Your task to perform on an android device: Open sound settings Image 0: 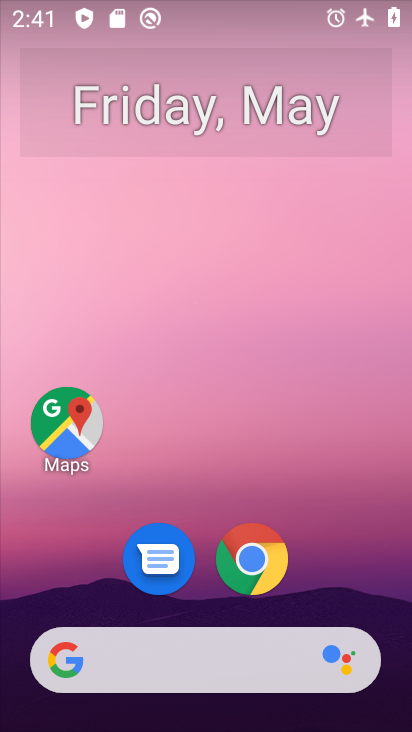
Step 0: drag from (363, 554) to (327, 110)
Your task to perform on an android device: Open sound settings Image 1: 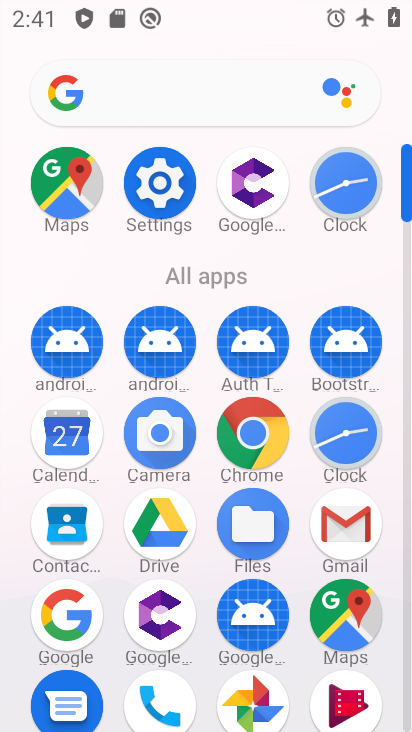
Step 1: click (154, 193)
Your task to perform on an android device: Open sound settings Image 2: 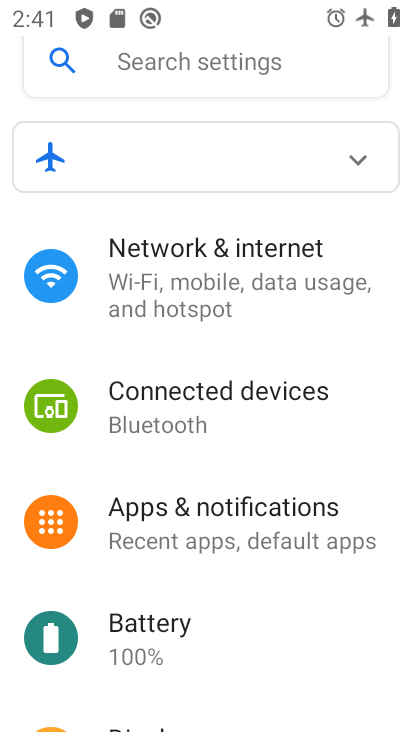
Step 2: drag from (182, 633) to (246, 365)
Your task to perform on an android device: Open sound settings Image 3: 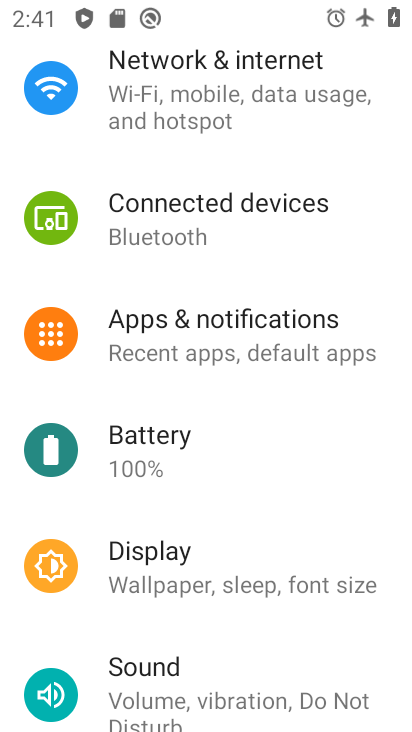
Step 3: click (246, 365)
Your task to perform on an android device: Open sound settings Image 4: 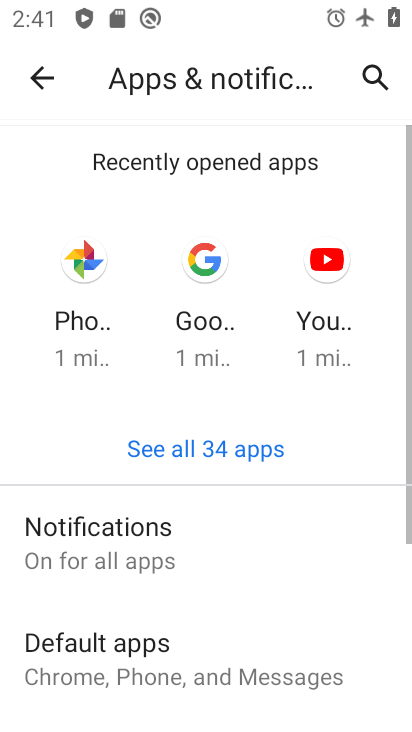
Step 4: click (44, 85)
Your task to perform on an android device: Open sound settings Image 5: 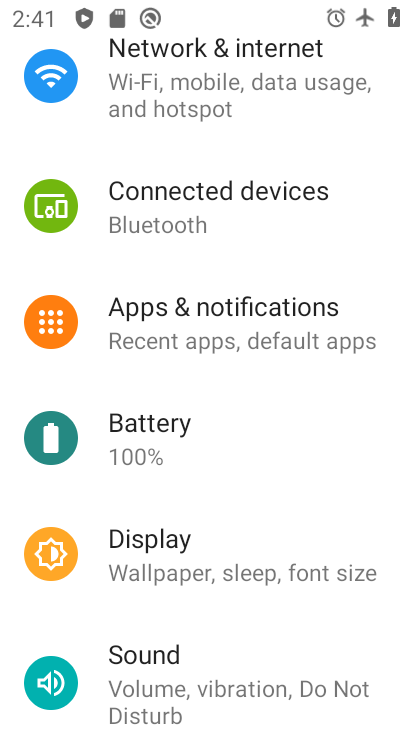
Step 5: click (226, 691)
Your task to perform on an android device: Open sound settings Image 6: 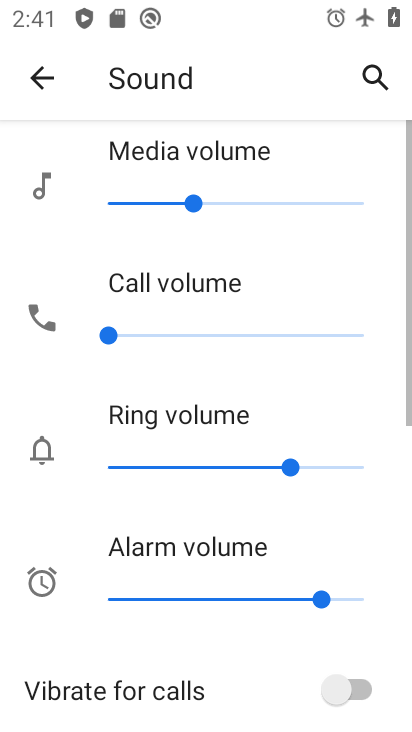
Step 6: task complete